Your task to perform on an android device: Go to ESPN.com Image 0: 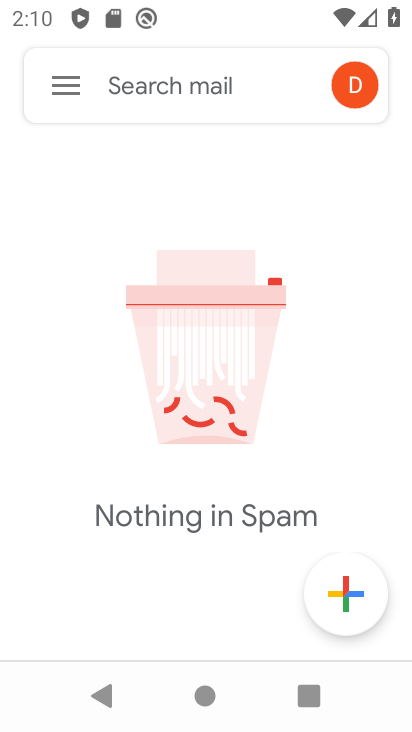
Step 0: press home button
Your task to perform on an android device: Go to ESPN.com Image 1: 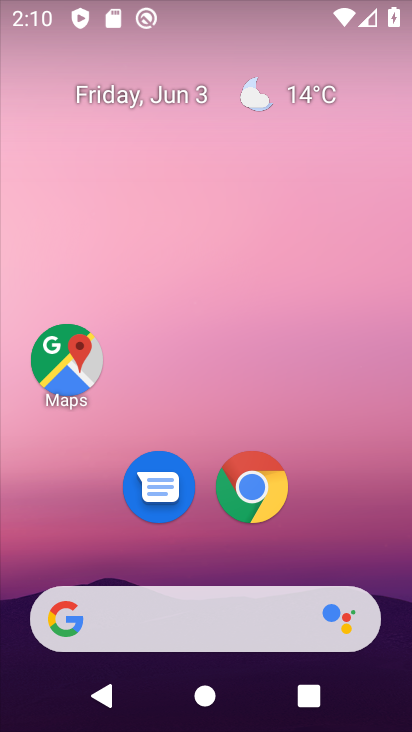
Step 1: click (256, 502)
Your task to perform on an android device: Go to ESPN.com Image 2: 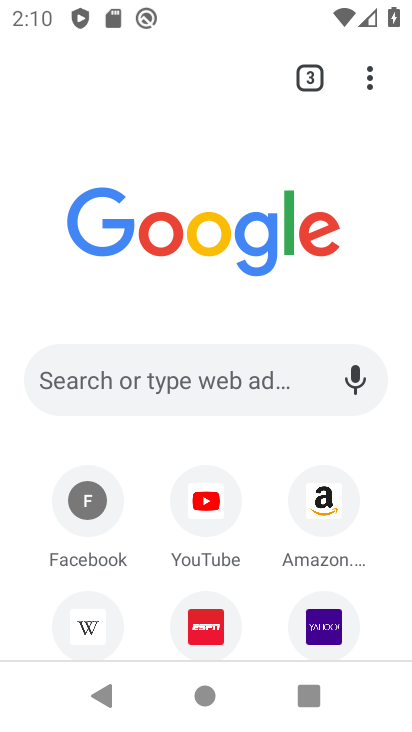
Step 2: click (197, 624)
Your task to perform on an android device: Go to ESPN.com Image 3: 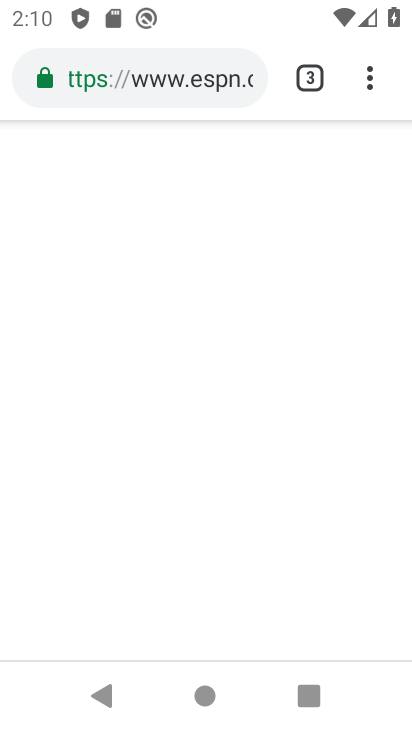
Step 3: task complete